Your task to perform on an android device: Open the stopwatch Image 0: 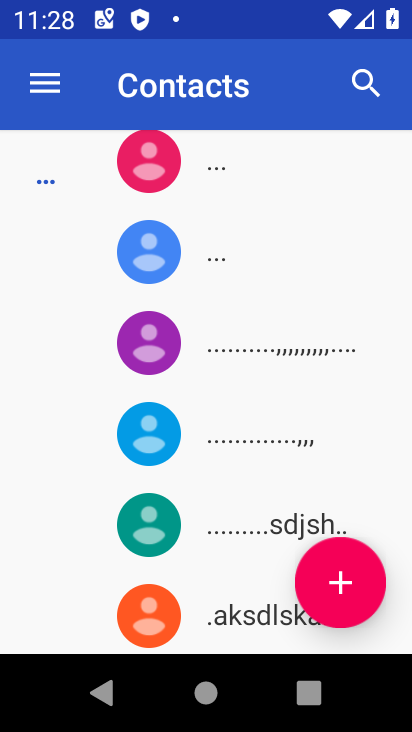
Step 0: press home button
Your task to perform on an android device: Open the stopwatch Image 1: 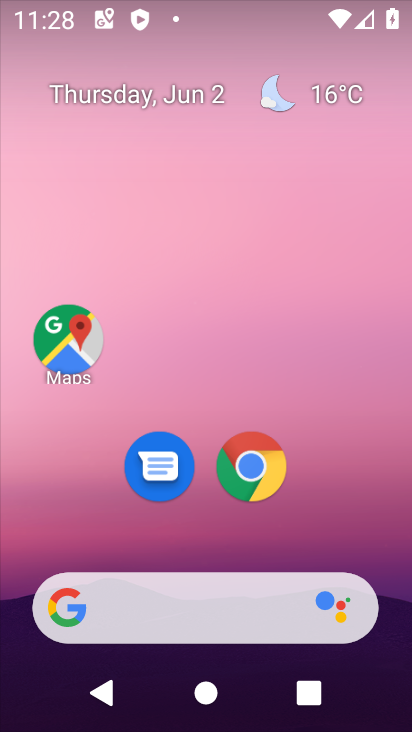
Step 1: drag from (250, 541) to (260, 180)
Your task to perform on an android device: Open the stopwatch Image 2: 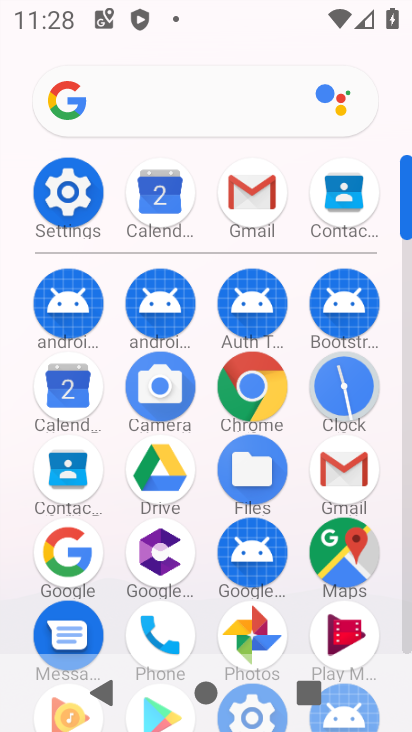
Step 2: click (352, 404)
Your task to perform on an android device: Open the stopwatch Image 3: 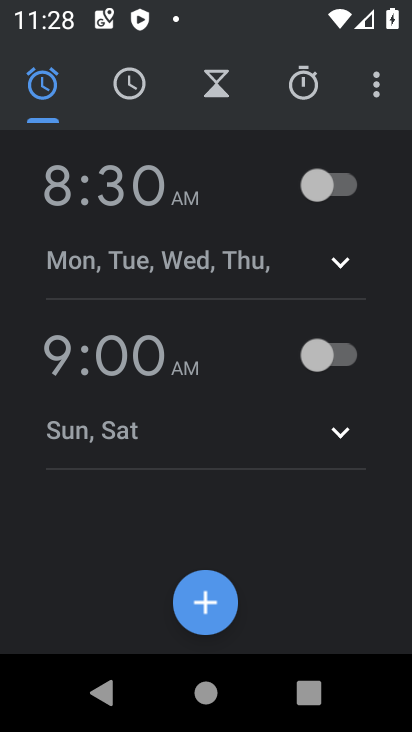
Step 3: click (294, 80)
Your task to perform on an android device: Open the stopwatch Image 4: 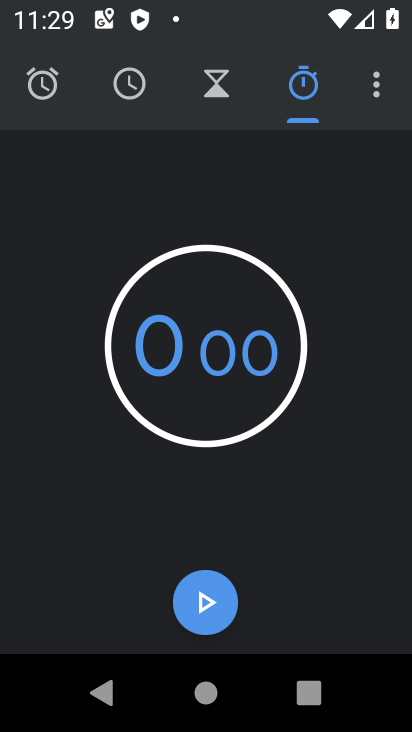
Step 4: click (209, 610)
Your task to perform on an android device: Open the stopwatch Image 5: 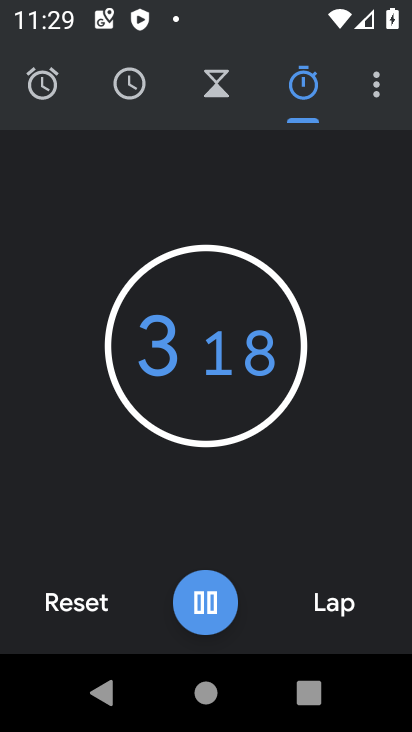
Step 5: task complete